Your task to perform on an android device: delete location history Image 0: 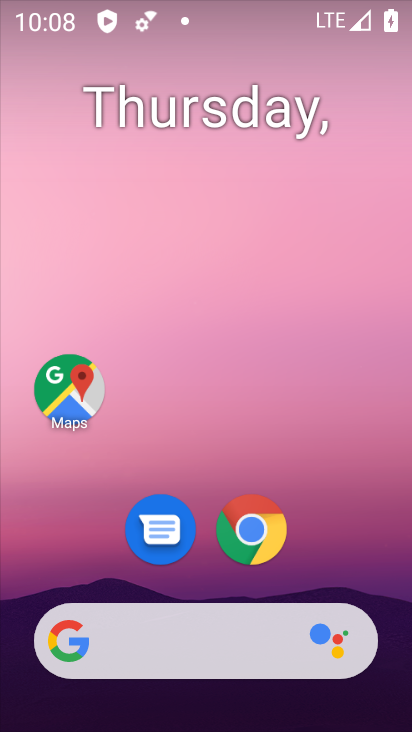
Step 0: drag from (285, 578) to (277, 102)
Your task to perform on an android device: delete location history Image 1: 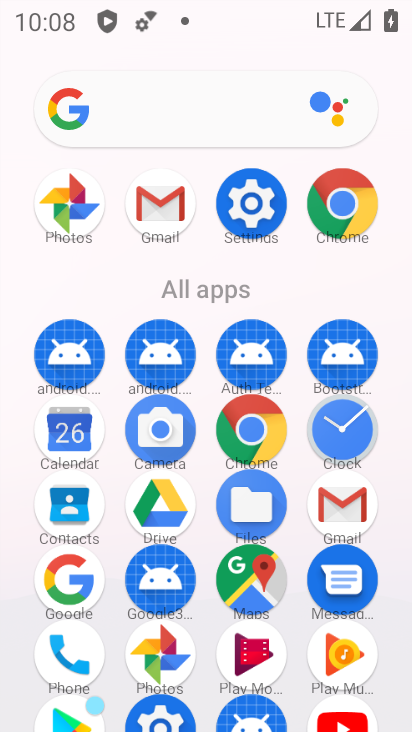
Step 1: click (234, 593)
Your task to perform on an android device: delete location history Image 2: 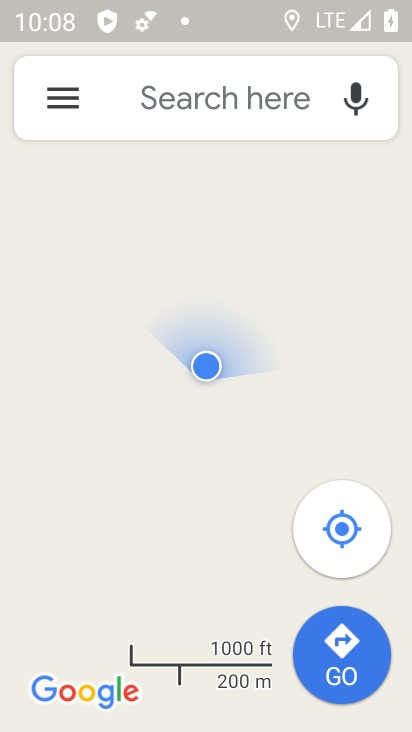
Step 2: click (54, 107)
Your task to perform on an android device: delete location history Image 3: 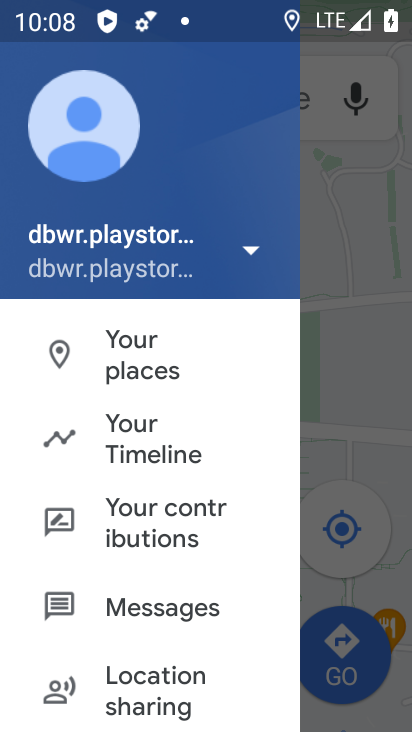
Step 3: drag from (162, 651) to (169, 305)
Your task to perform on an android device: delete location history Image 4: 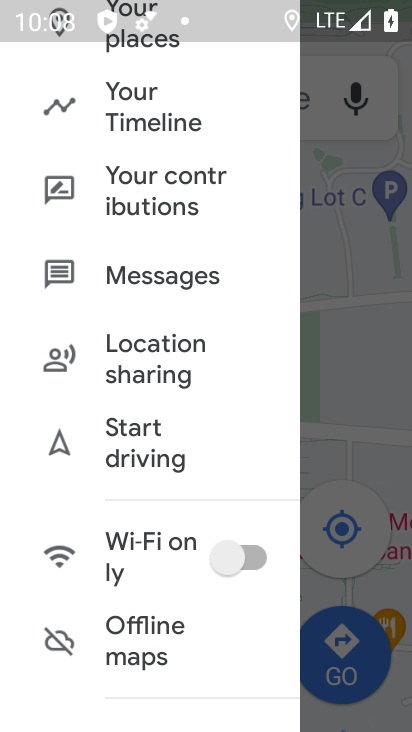
Step 4: drag from (154, 613) to (161, 244)
Your task to perform on an android device: delete location history Image 5: 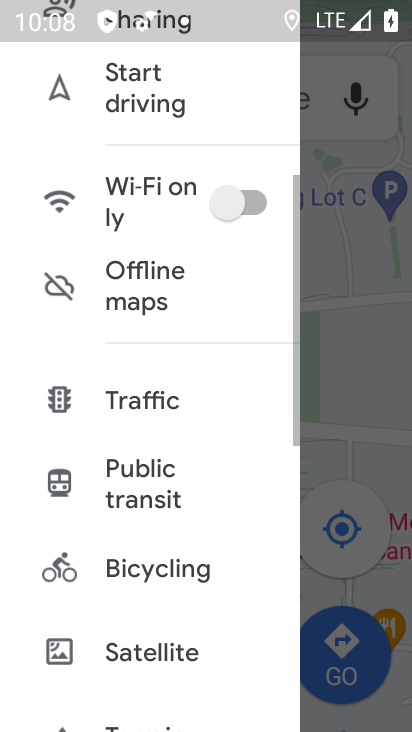
Step 5: drag from (137, 627) to (156, 248)
Your task to perform on an android device: delete location history Image 6: 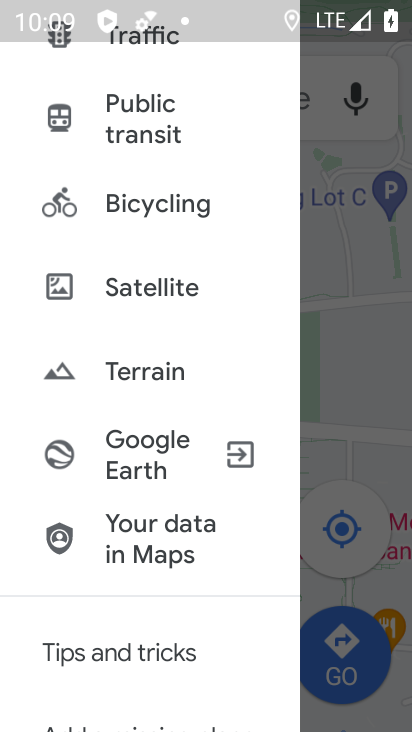
Step 6: drag from (159, 618) to (173, 175)
Your task to perform on an android device: delete location history Image 7: 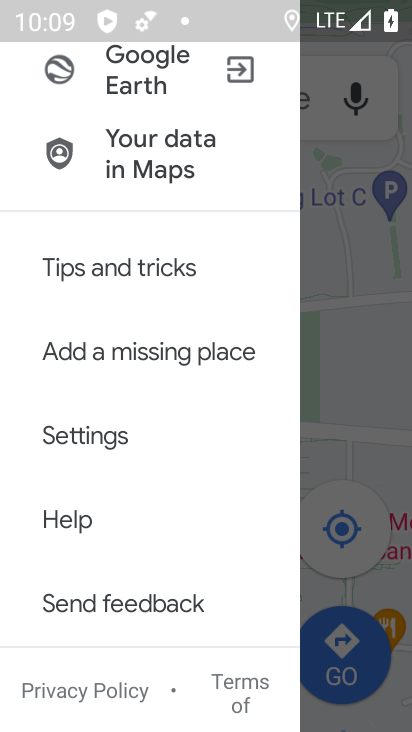
Step 7: drag from (139, 646) to (139, 347)
Your task to perform on an android device: delete location history Image 8: 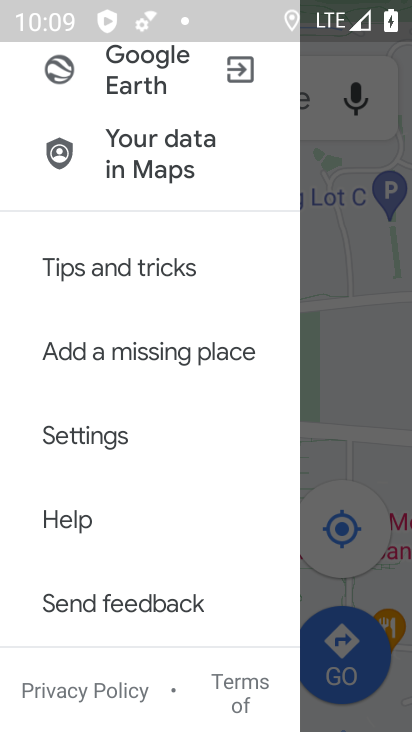
Step 8: drag from (125, 311) to (171, 687)
Your task to perform on an android device: delete location history Image 9: 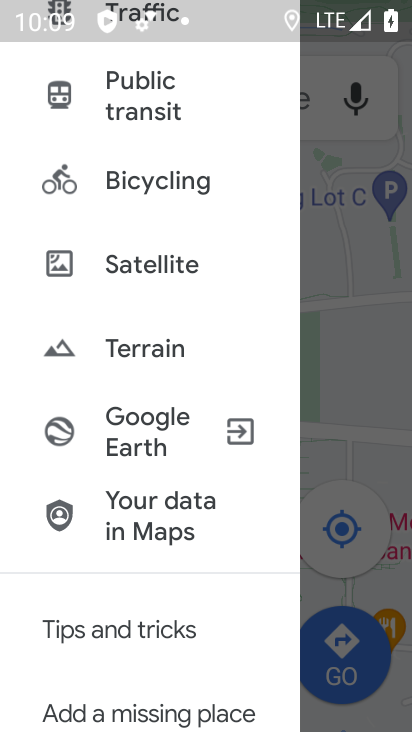
Step 9: drag from (157, 302) to (178, 700)
Your task to perform on an android device: delete location history Image 10: 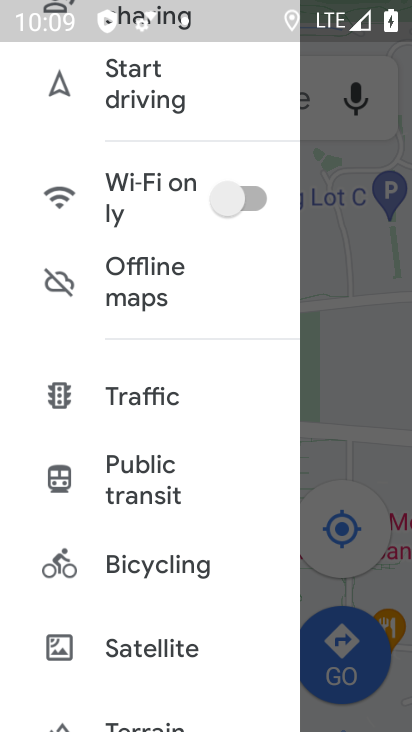
Step 10: drag from (141, 279) to (157, 666)
Your task to perform on an android device: delete location history Image 11: 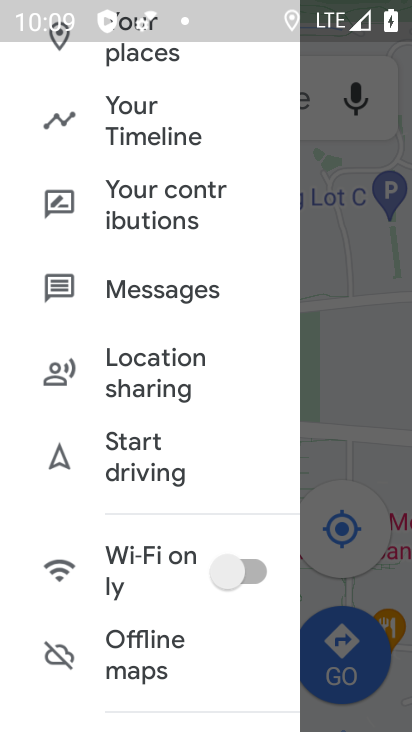
Step 11: click (135, 130)
Your task to perform on an android device: delete location history Image 12: 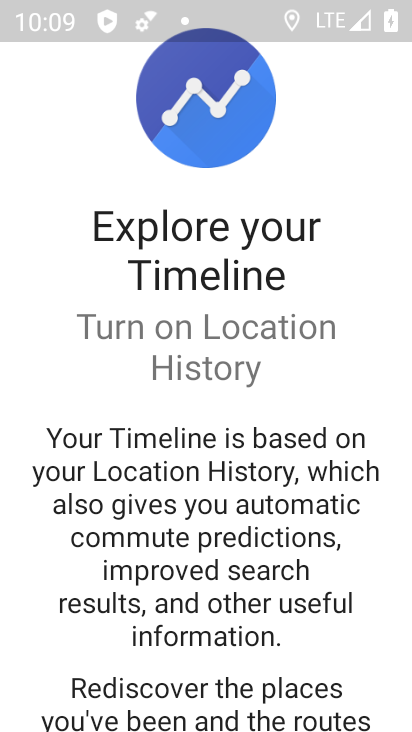
Step 12: drag from (223, 646) to (259, 156)
Your task to perform on an android device: delete location history Image 13: 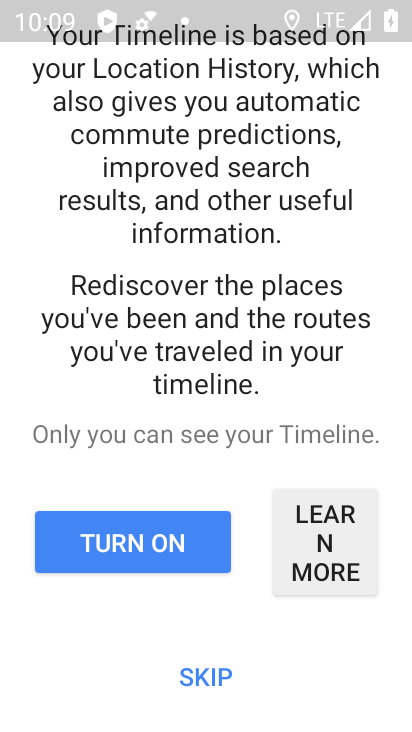
Step 13: click (197, 685)
Your task to perform on an android device: delete location history Image 14: 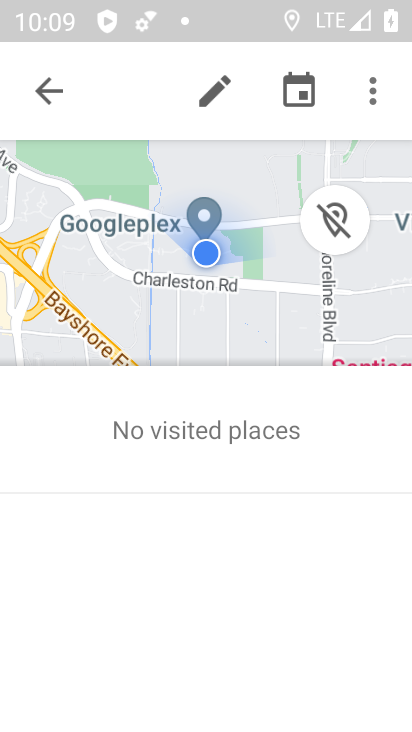
Step 14: click (368, 88)
Your task to perform on an android device: delete location history Image 15: 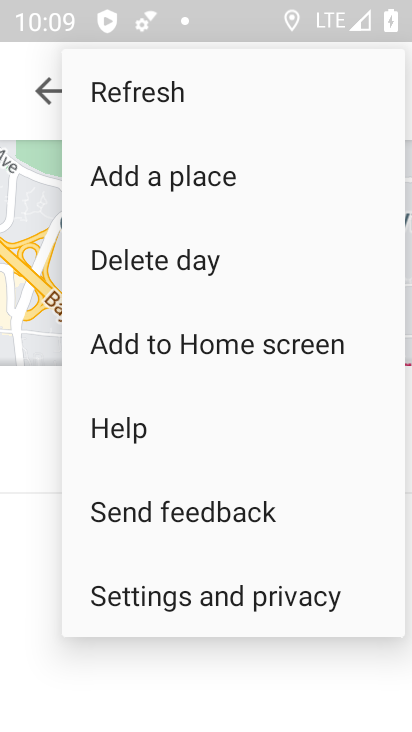
Step 15: click (198, 600)
Your task to perform on an android device: delete location history Image 16: 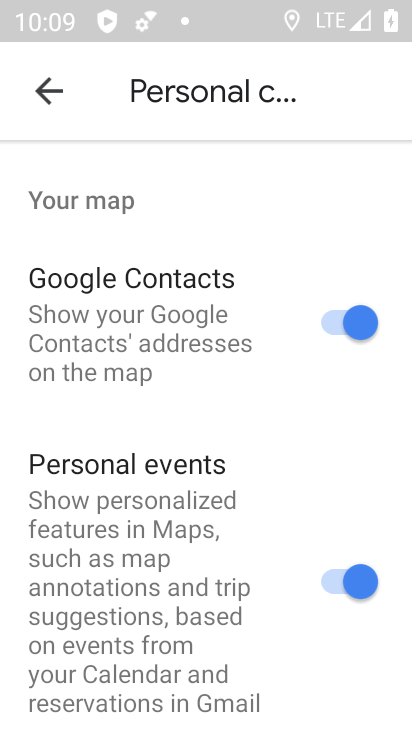
Step 16: drag from (147, 672) to (151, 357)
Your task to perform on an android device: delete location history Image 17: 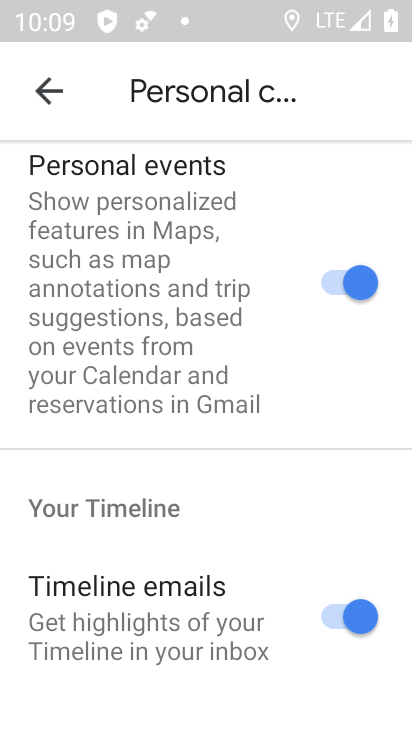
Step 17: drag from (143, 679) to (169, 403)
Your task to perform on an android device: delete location history Image 18: 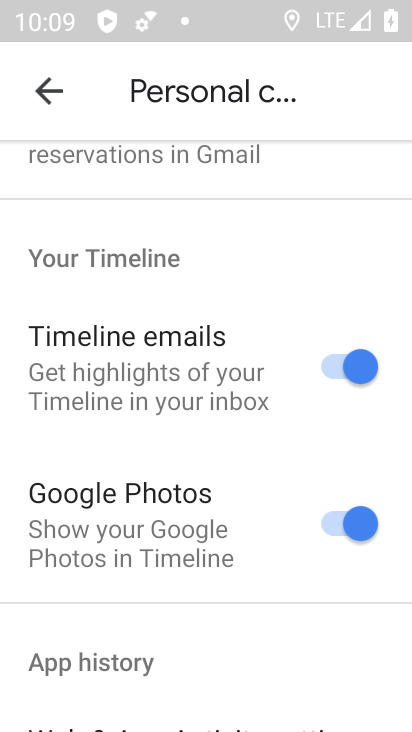
Step 18: drag from (172, 623) to (182, 379)
Your task to perform on an android device: delete location history Image 19: 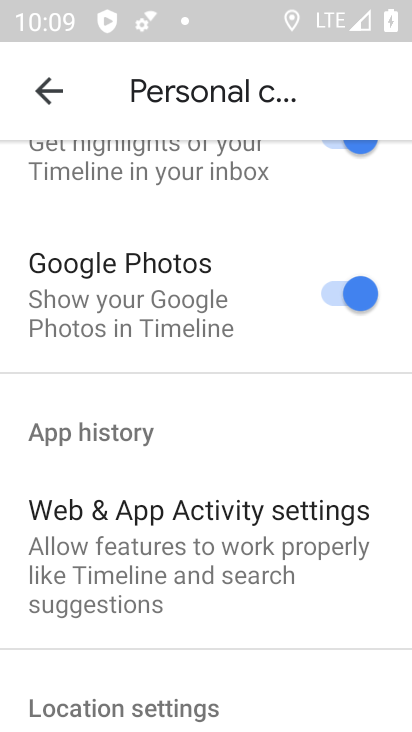
Step 19: drag from (192, 662) to (233, 262)
Your task to perform on an android device: delete location history Image 20: 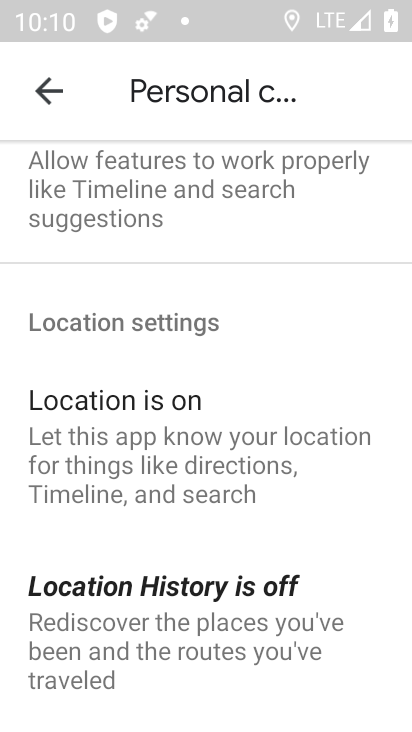
Step 20: drag from (183, 662) to (217, 453)
Your task to perform on an android device: delete location history Image 21: 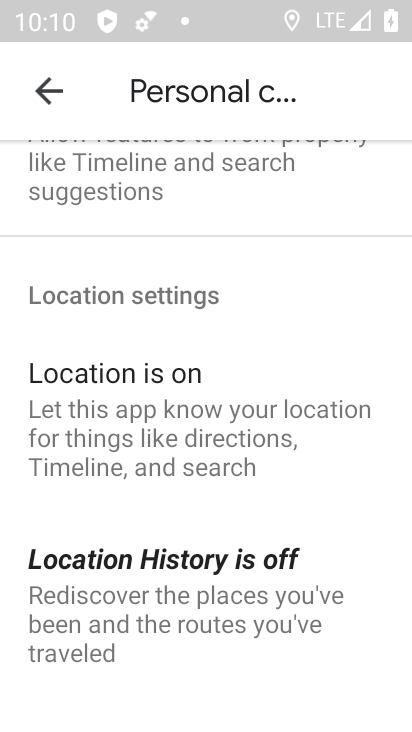
Step 21: drag from (134, 502) to (163, 191)
Your task to perform on an android device: delete location history Image 22: 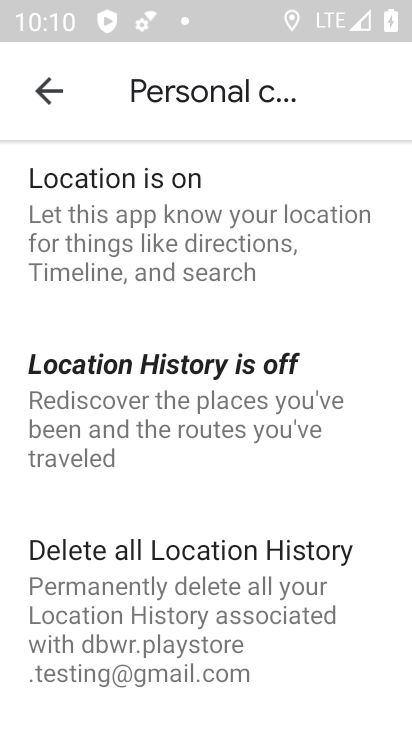
Step 22: click (161, 619)
Your task to perform on an android device: delete location history Image 23: 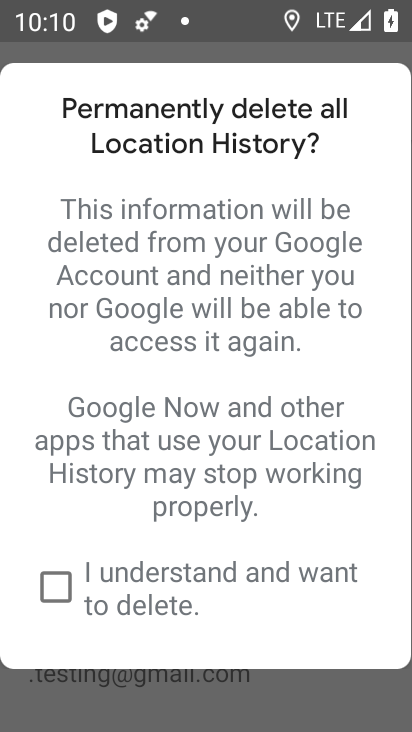
Step 23: click (58, 598)
Your task to perform on an android device: delete location history Image 24: 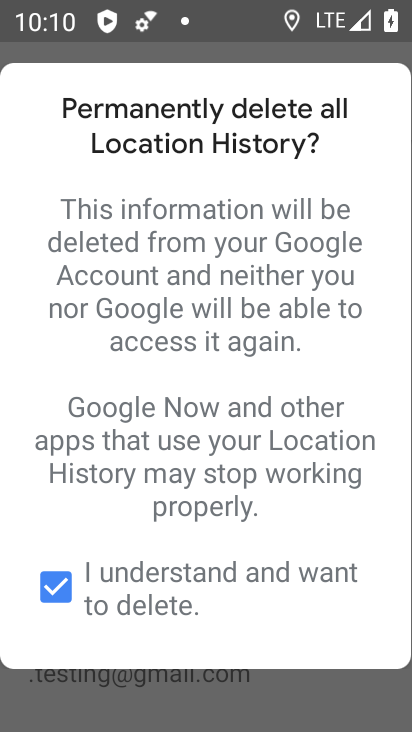
Step 24: task complete